Your task to perform on an android device: Search for the best rated phone case for the iPhone 8. Image 0: 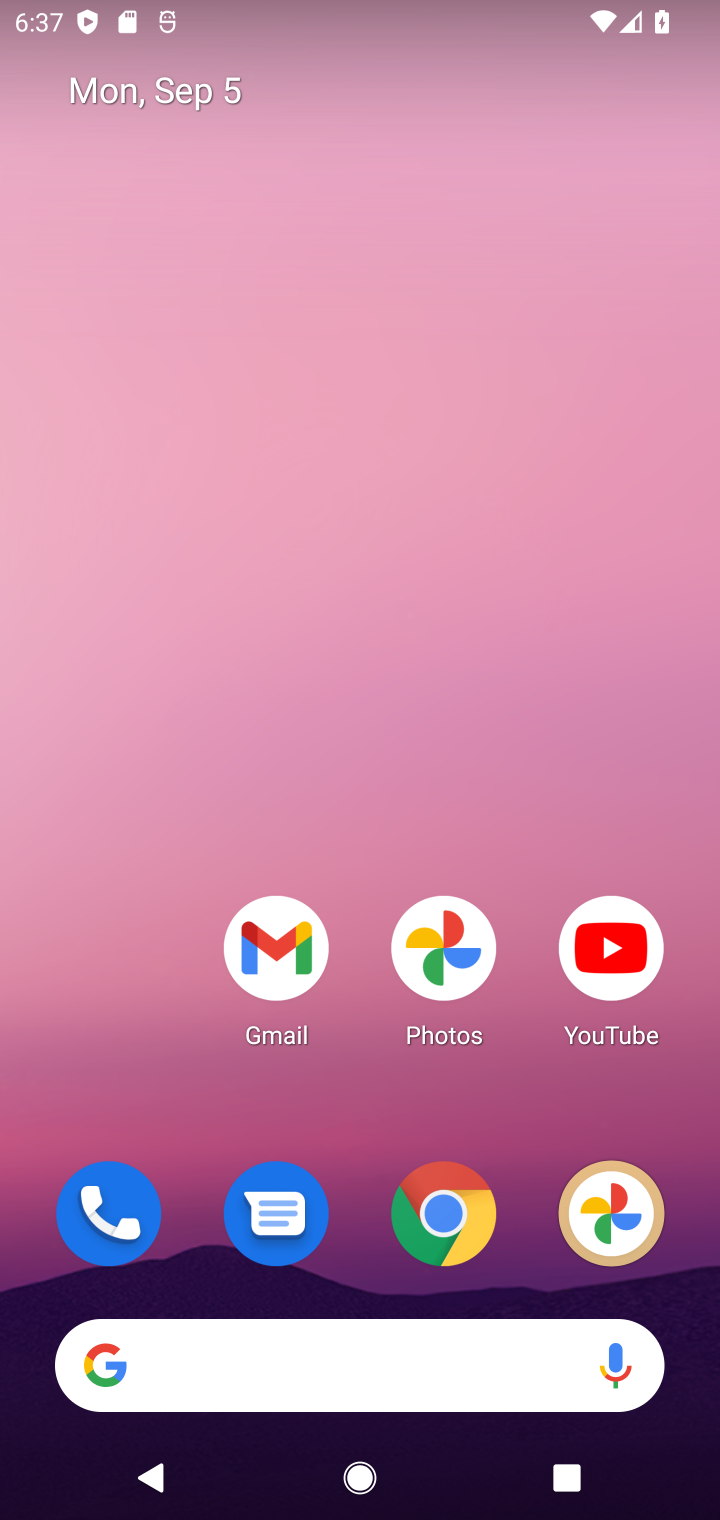
Step 0: click (432, 1221)
Your task to perform on an android device: Search for the best rated phone case for the iPhone 8. Image 1: 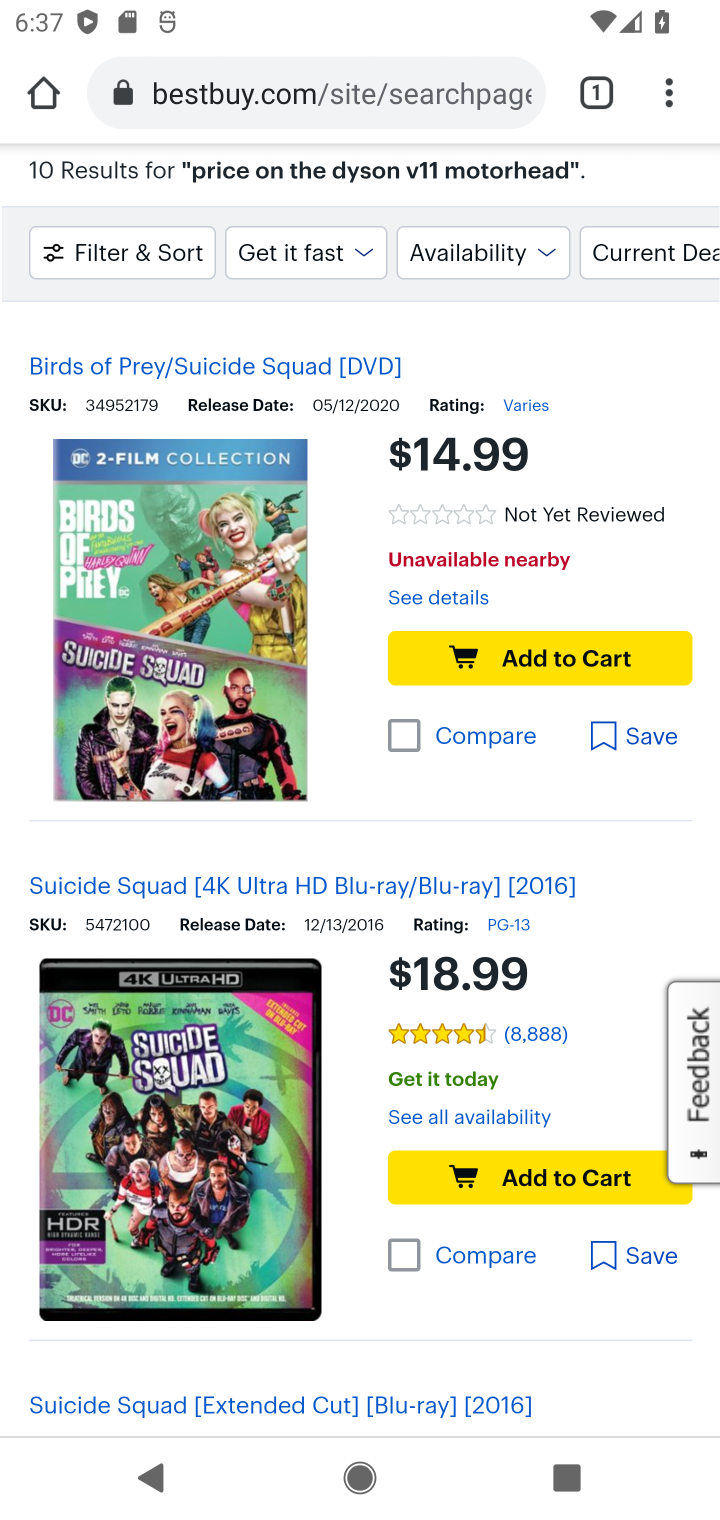
Step 1: click (260, 81)
Your task to perform on an android device: Search for the best rated phone case for the iPhone 8. Image 2: 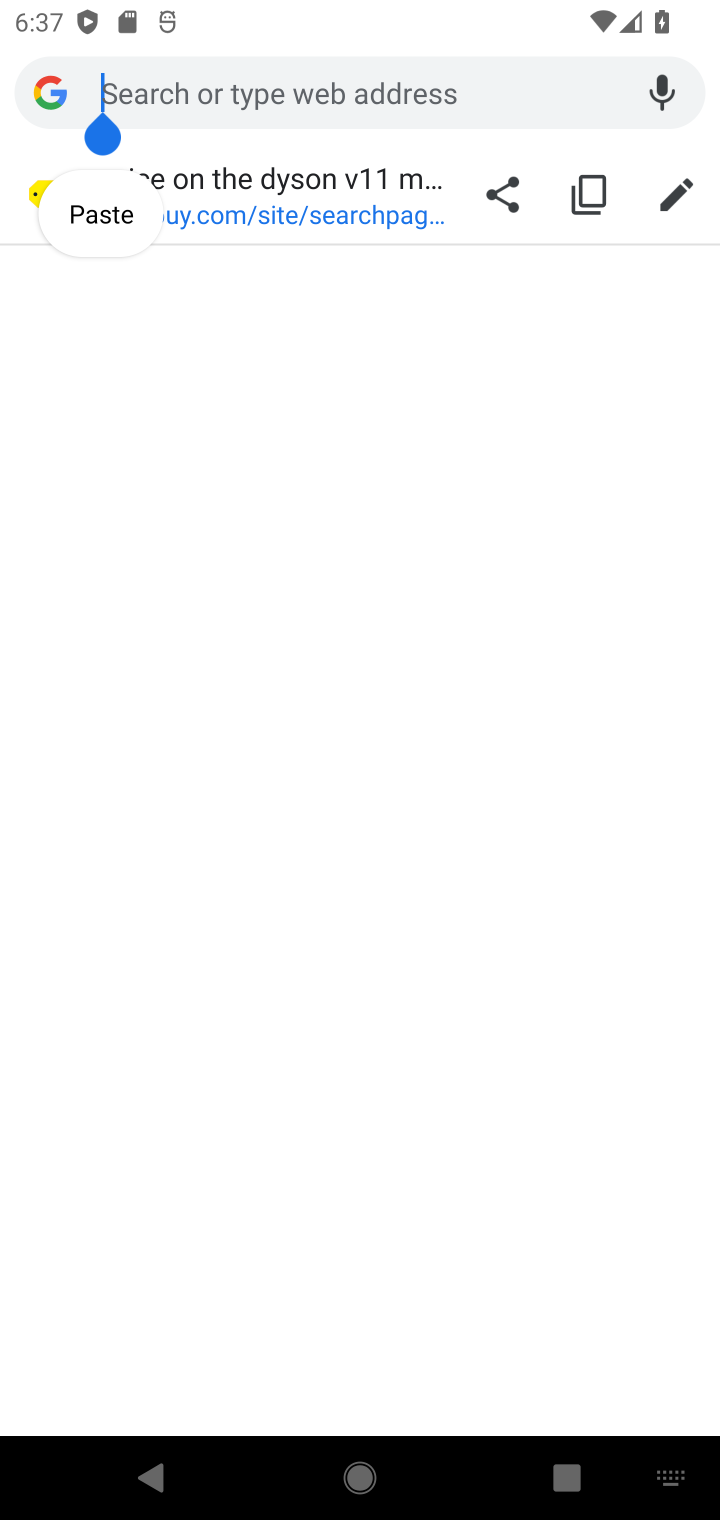
Step 2: type "best rated phone case for the iPhone 8."
Your task to perform on an android device: Search for the best rated phone case for the iPhone 8. Image 3: 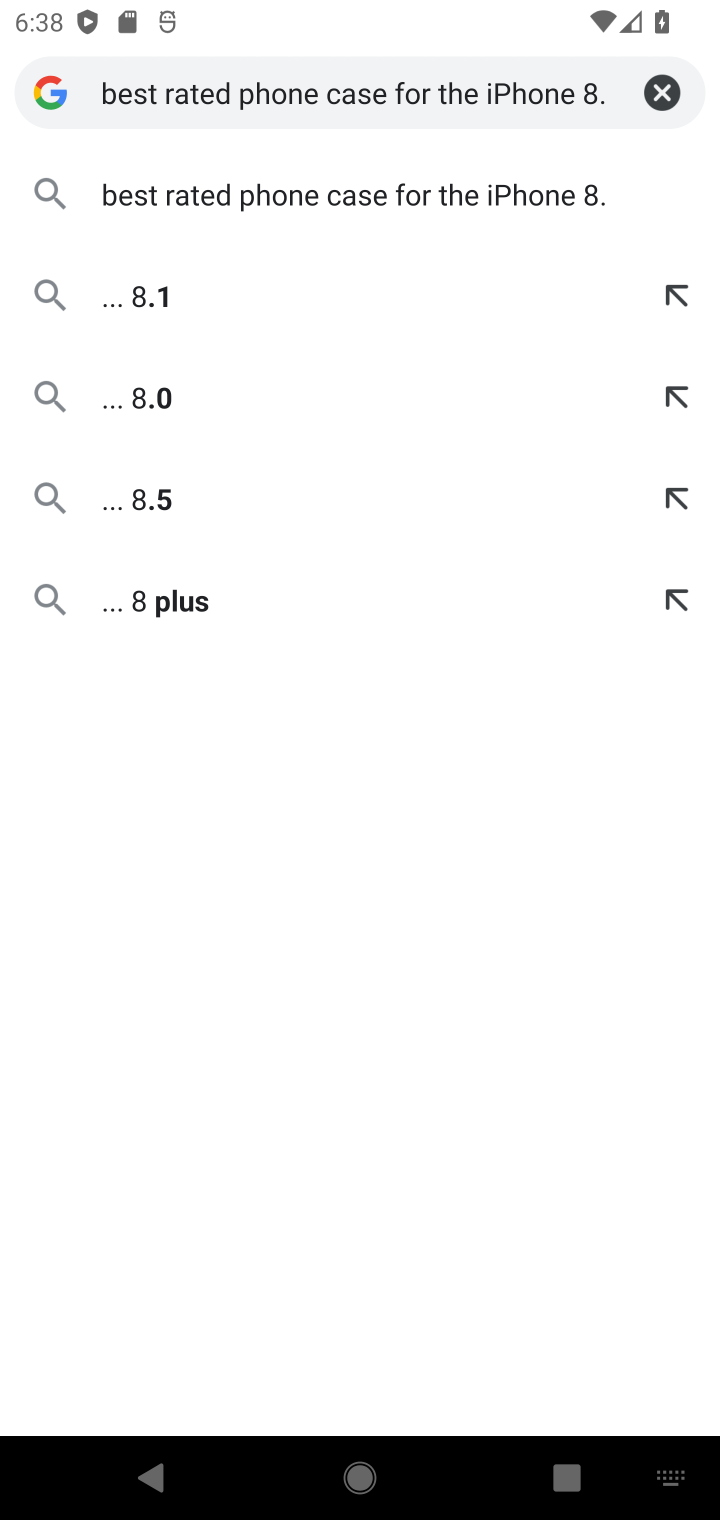
Step 3: click (352, 210)
Your task to perform on an android device: Search for the best rated phone case for the iPhone 8. Image 4: 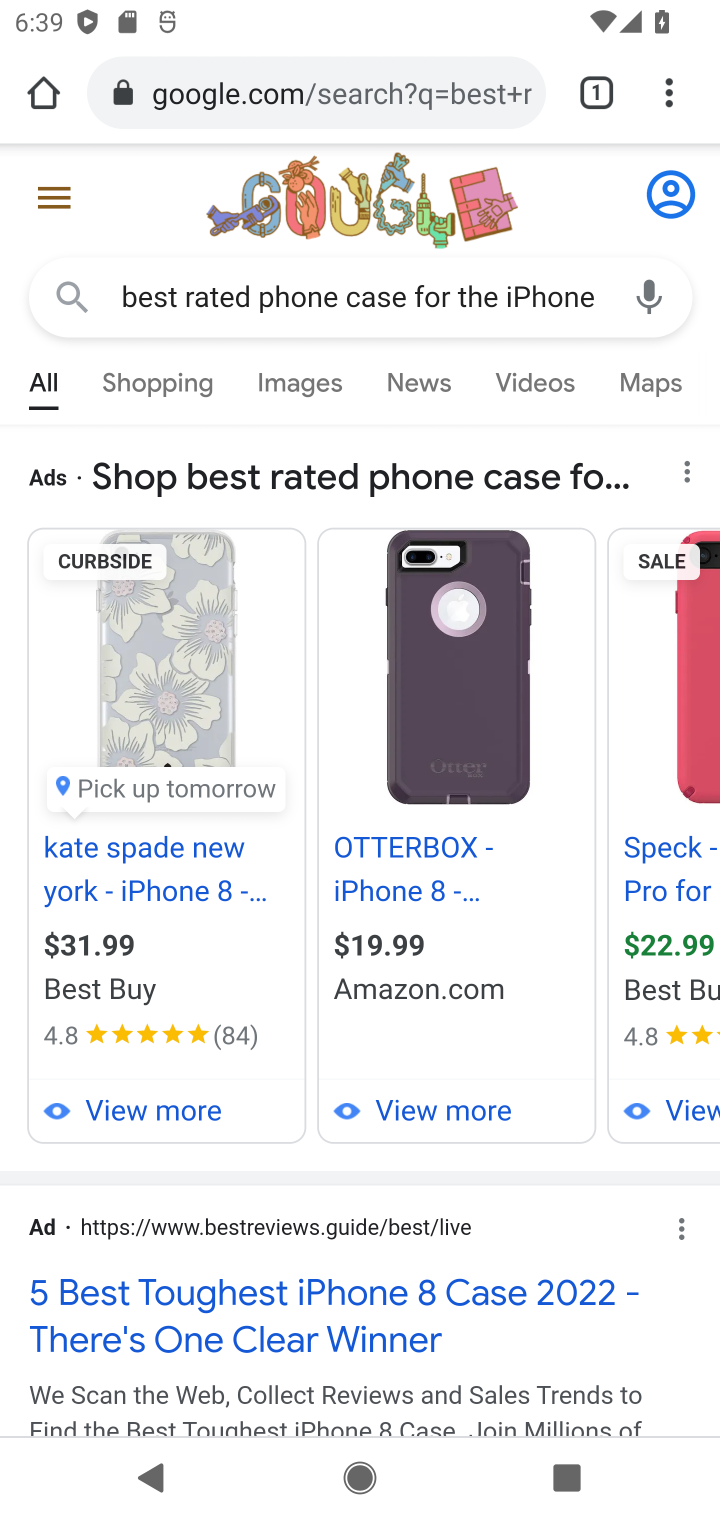
Step 4: drag from (361, 657) to (341, 378)
Your task to perform on an android device: Search for the best rated phone case for the iPhone 8. Image 5: 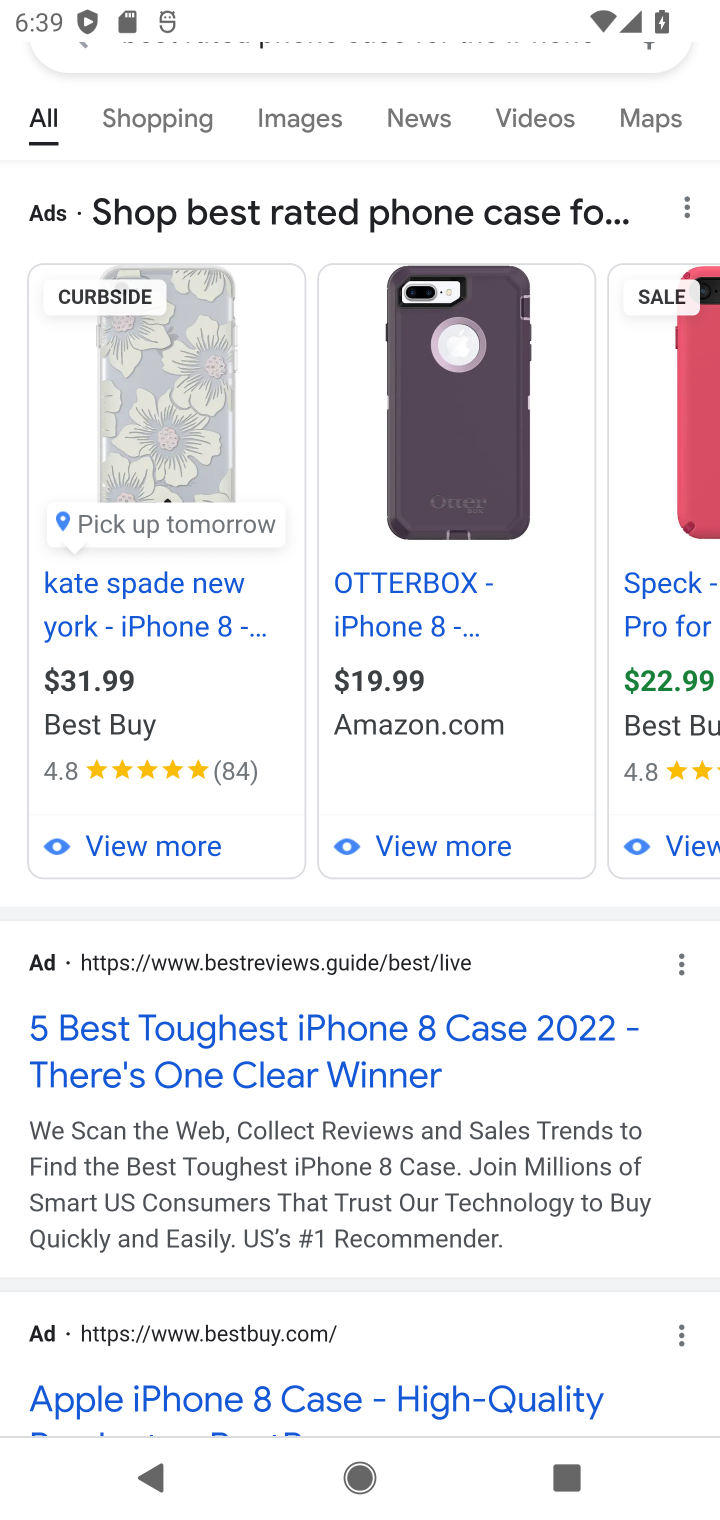
Step 5: click (104, 572)
Your task to perform on an android device: Search for the best rated phone case for the iPhone 8. Image 6: 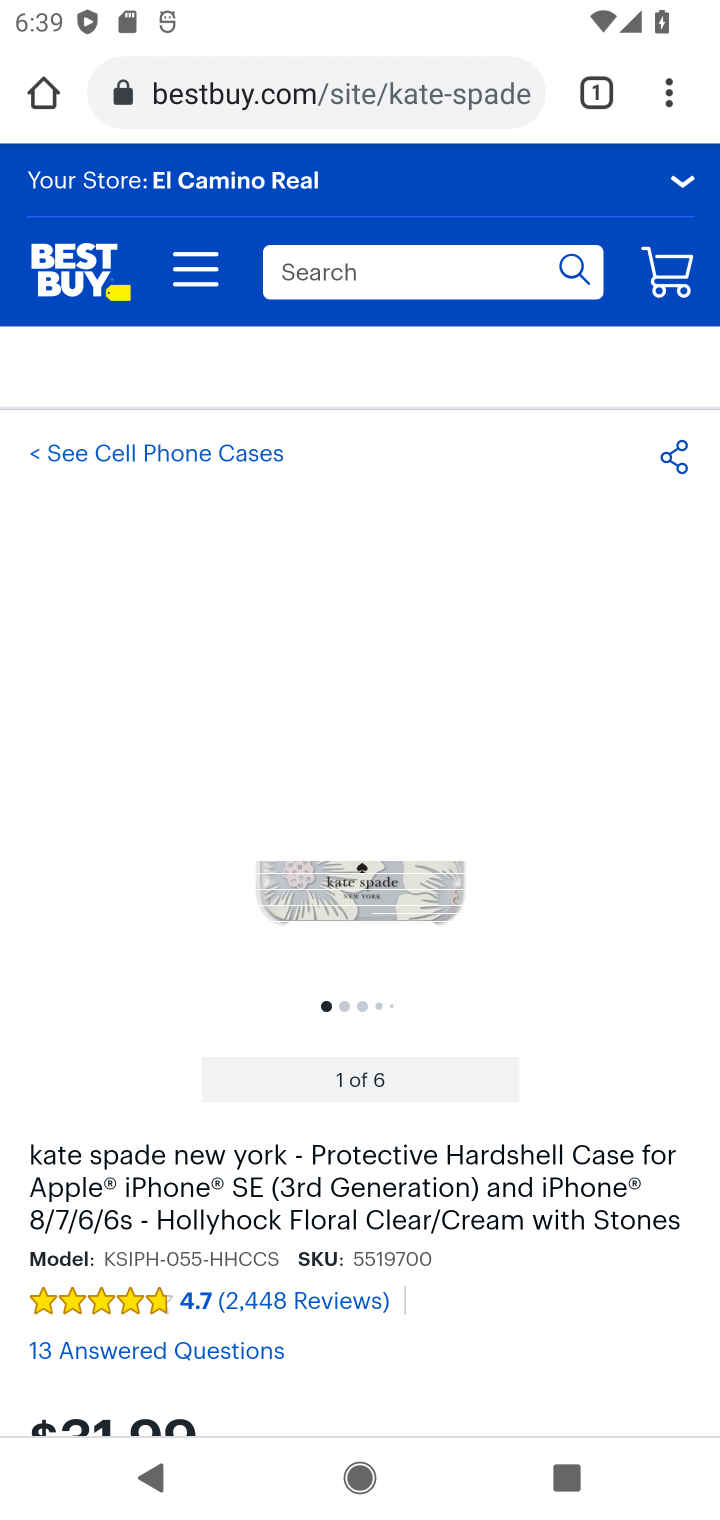
Step 6: task complete